Your task to perform on an android device: add a contact in the contacts app Image 0: 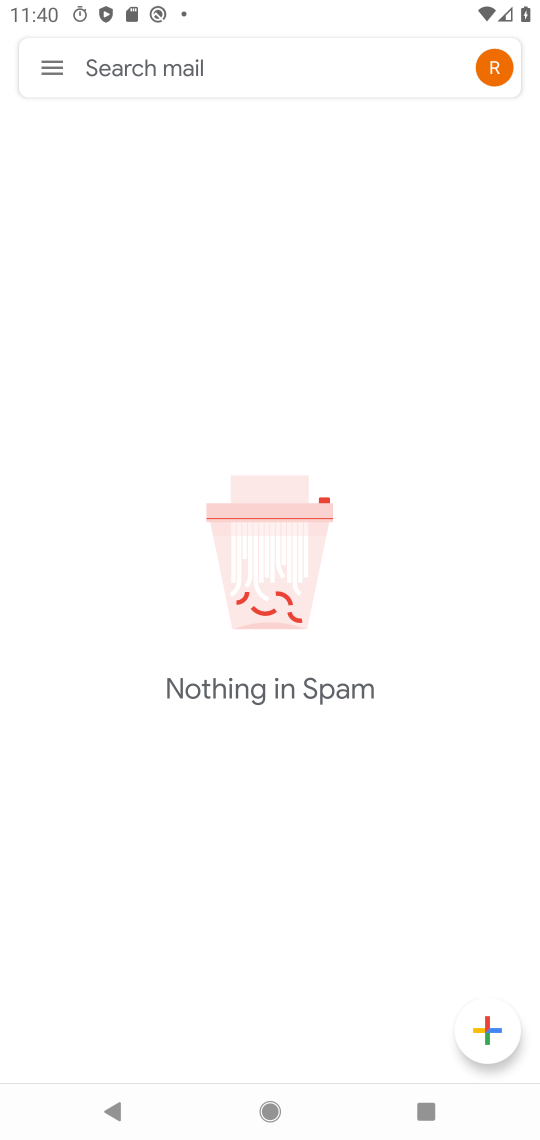
Step 0: press home button
Your task to perform on an android device: add a contact in the contacts app Image 1: 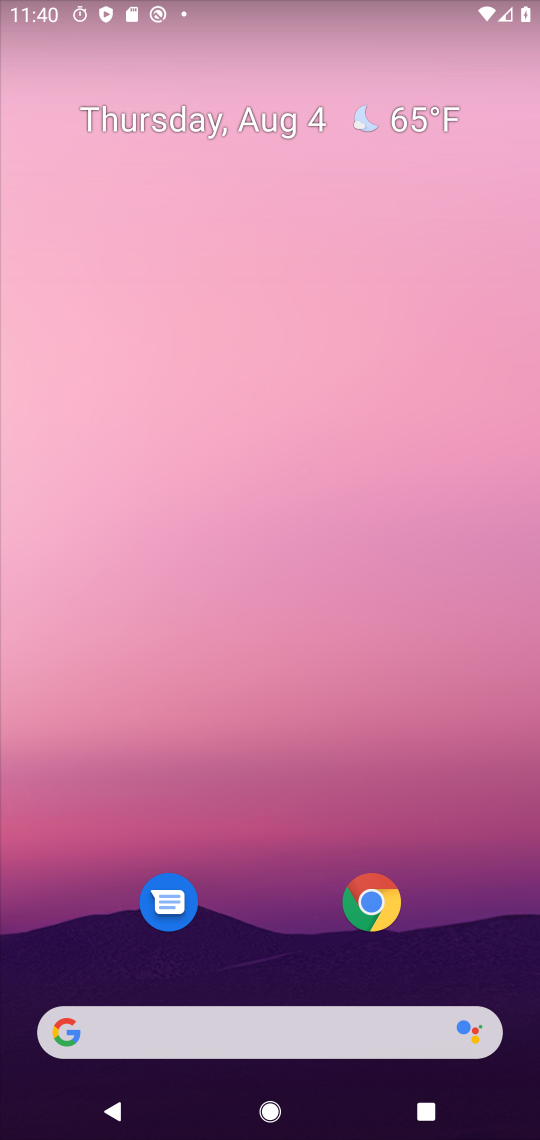
Step 1: drag from (321, 1064) to (270, 310)
Your task to perform on an android device: add a contact in the contacts app Image 2: 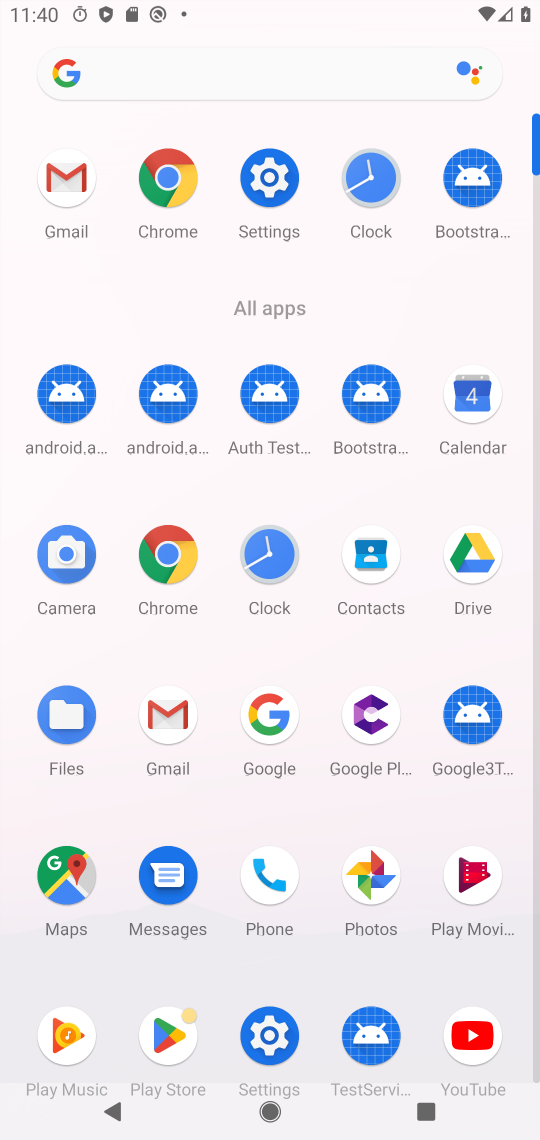
Step 2: click (268, 876)
Your task to perform on an android device: add a contact in the contacts app Image 3: 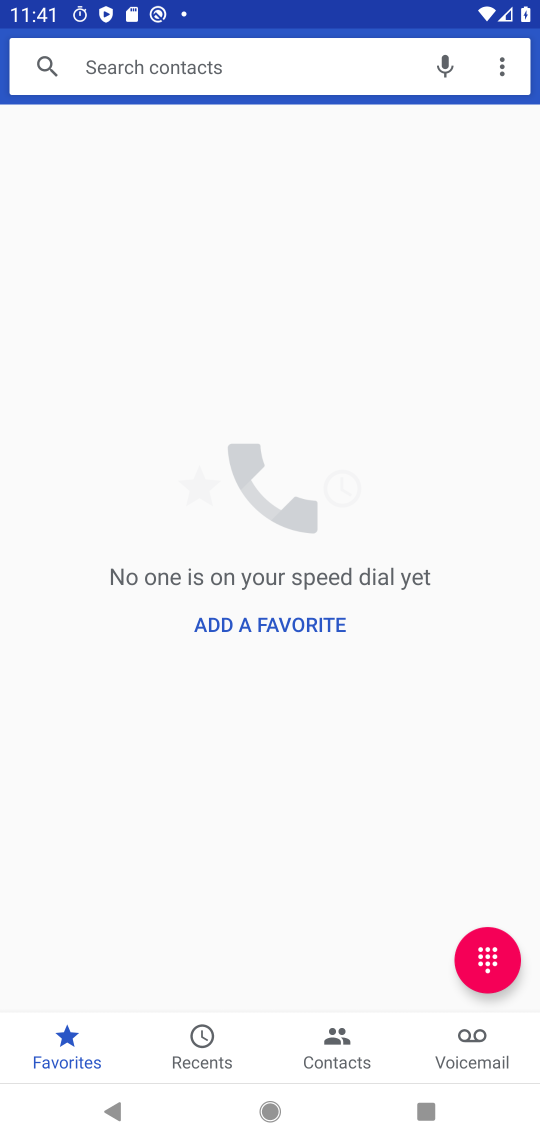
Step 3: click (348, 1039)
Your task to perform on an android device: add a contact in the contacts app Image 4: 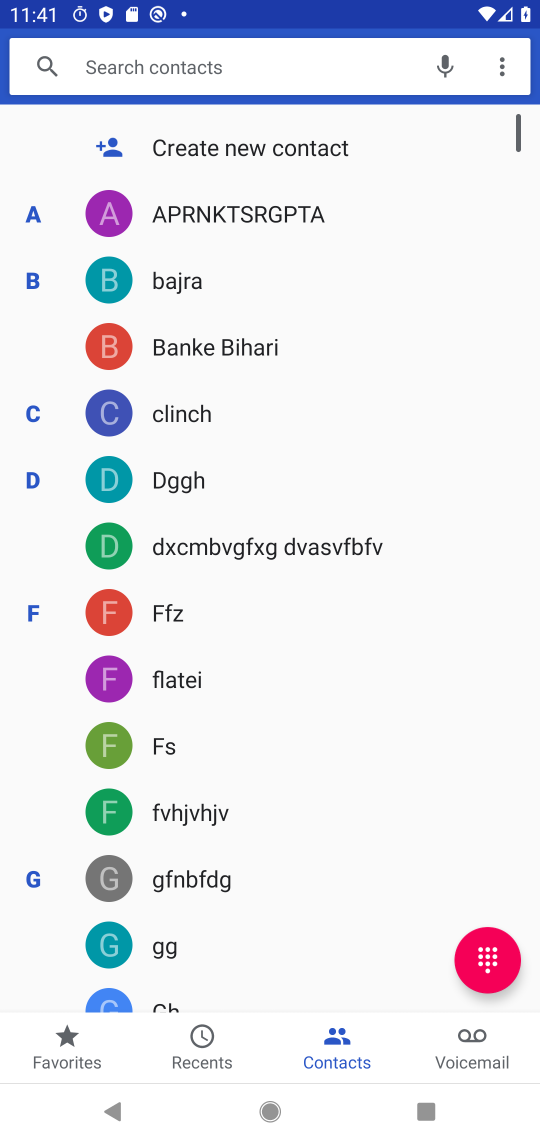
Step 4: click (236, 146)
Your task to perform on an android device: add a contact in the contacts app Image 5: 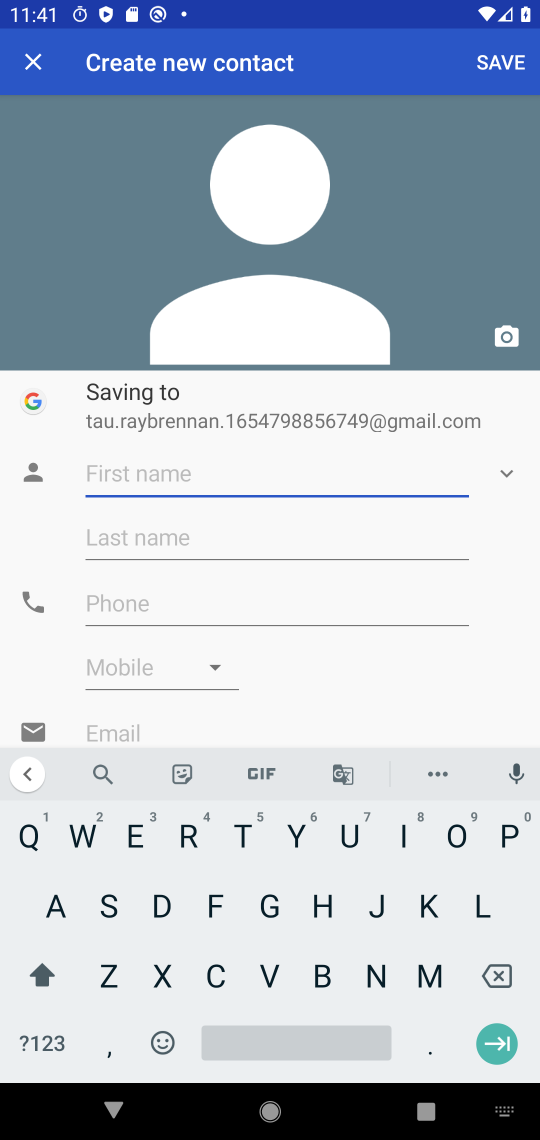
Step 5: click (221, 913)
Your task to perform on an android device: add a contact in the contacts app Image 6: 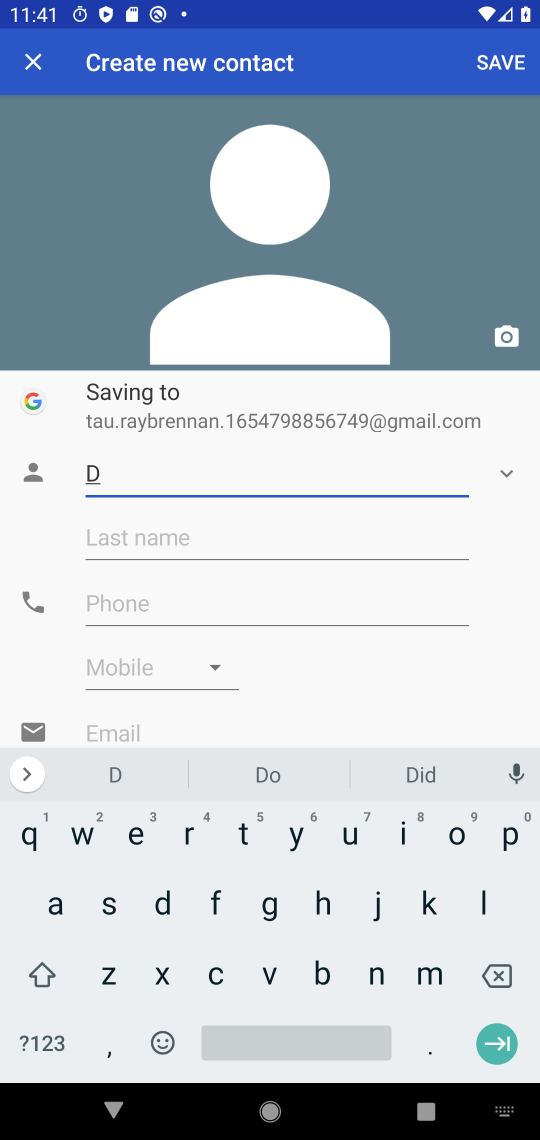
Step 6: click (163, 606)
Your task to perform on an android device: add a contact in the contacts app Image 7: 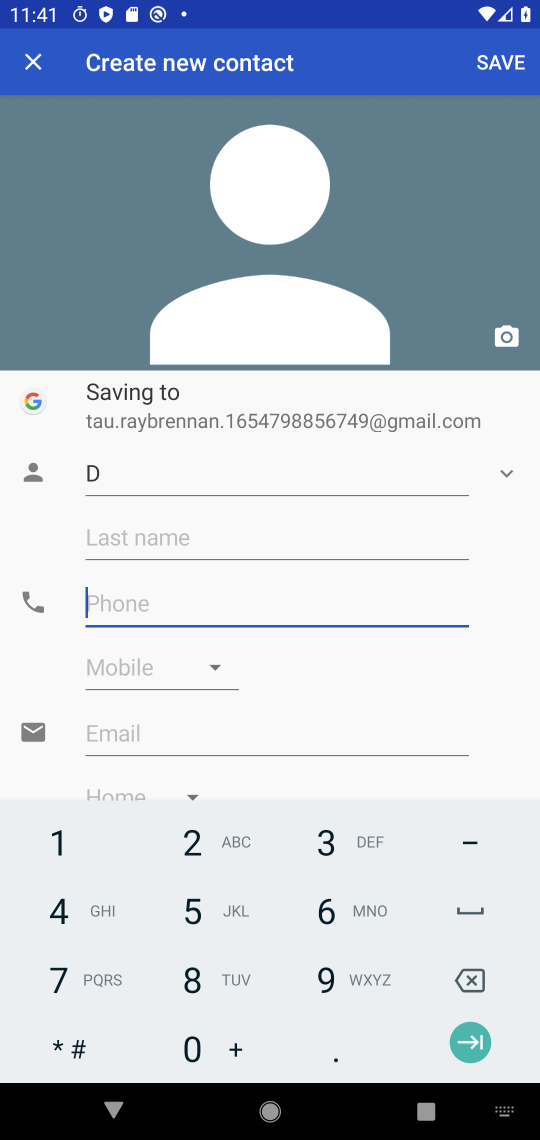
Step 7: click (310, 963)
Your task to perform on an android device: add a contact in the contacts app Image 8: 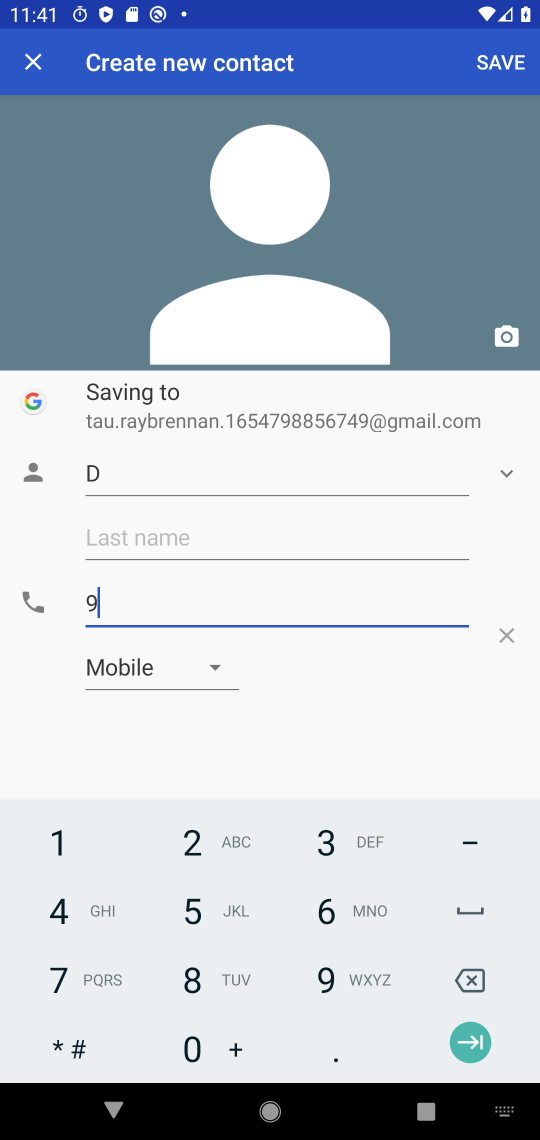
Step 8: click (201, 909)
Your task to perform on an android device: add a contact in the contacts app Image 9: 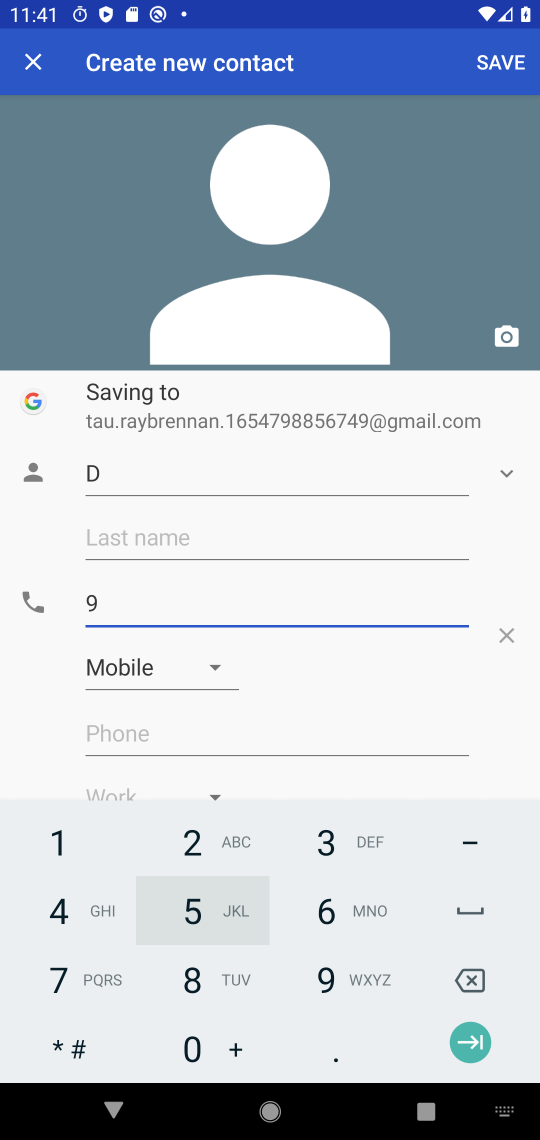
Step 9: click (179, 951)
Your task to perform on an android device: add a contact in the contacts app Image 10: 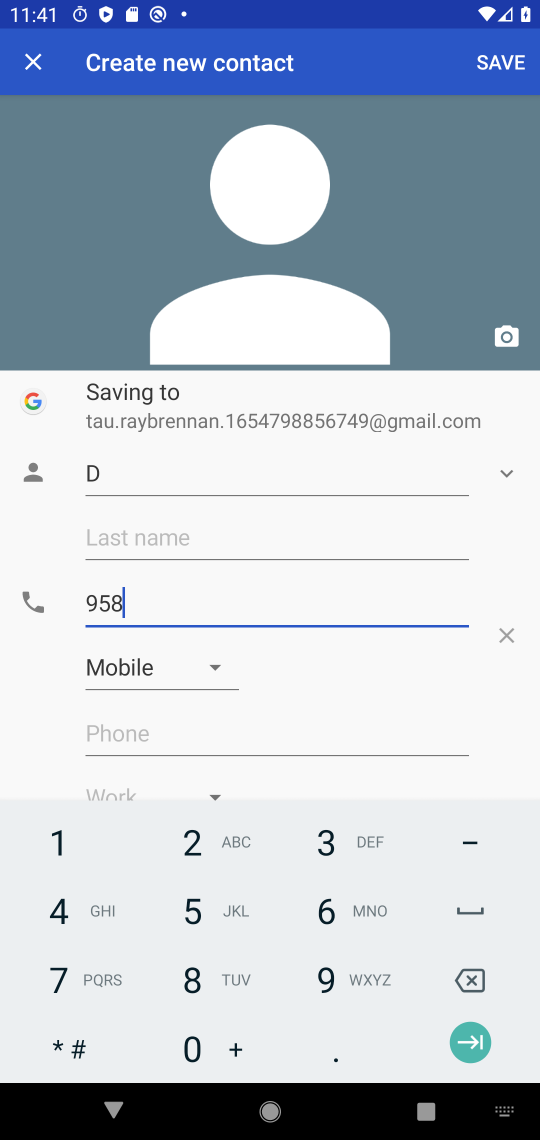
Step 10: click (94, 900)
Your task to perform on an android device: add a contact in the contacts app Image 11: 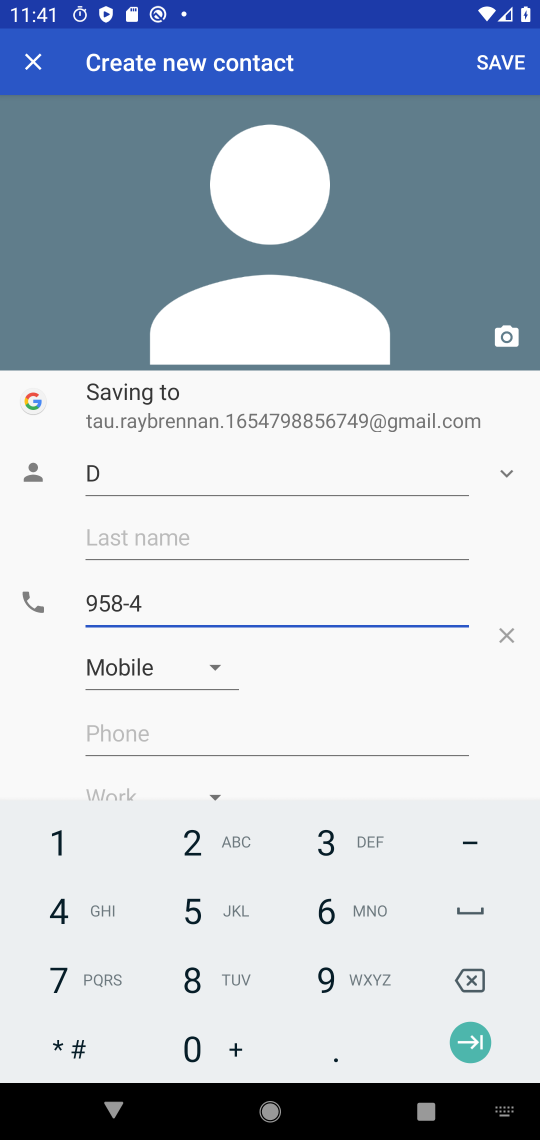
Step 11: click (200, 855)
Your task to perform on an android device: add a contact in the contacts app Image 12: 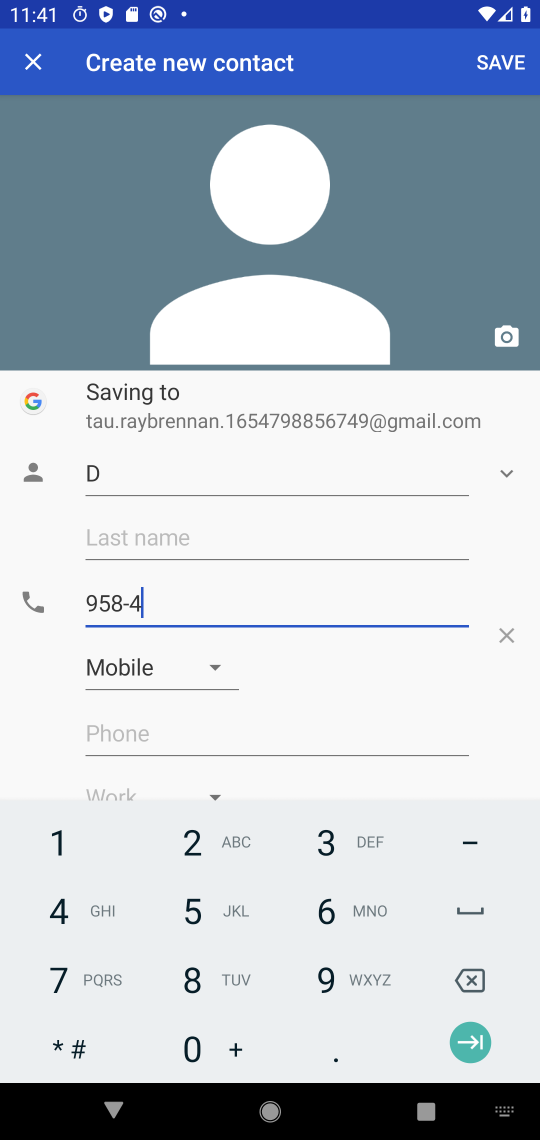
Step 12: click (194, 902)
Your task to perform on an android device: add a contact in the contacts app Image 13: 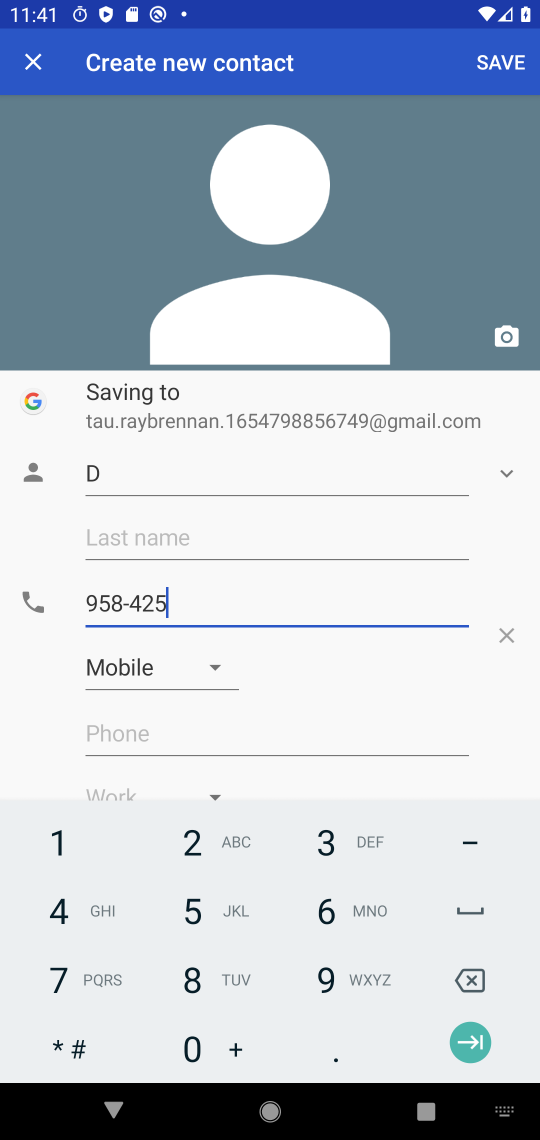
Step 13: click (199, 476)
Your task to perform on an android device: add a contact in the contacts app Image 14: 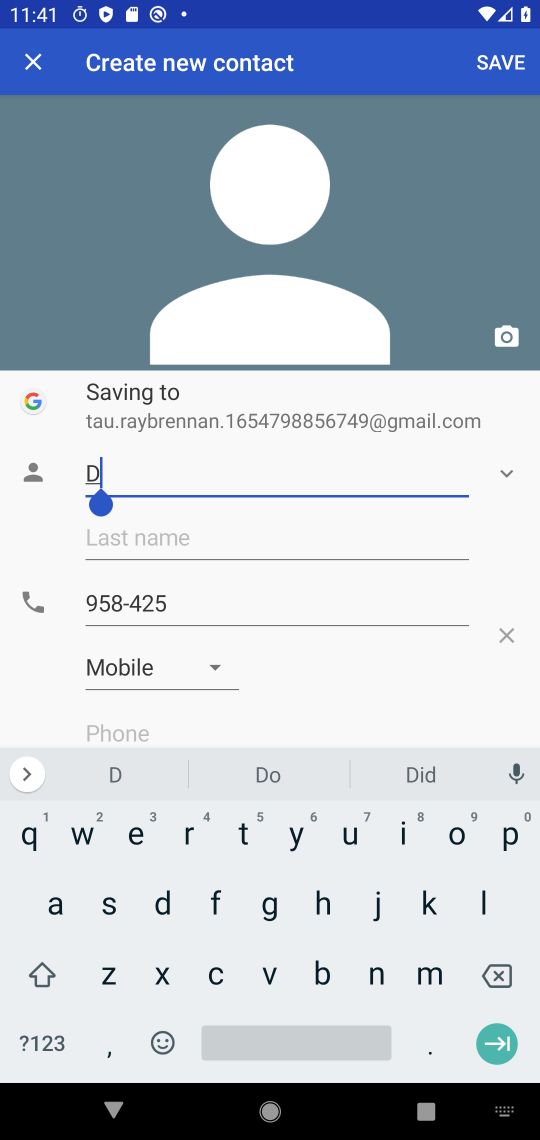
Step 14: click (217, 861)
Your task to perform on an android device: add a contact in the contacts app Image 15: 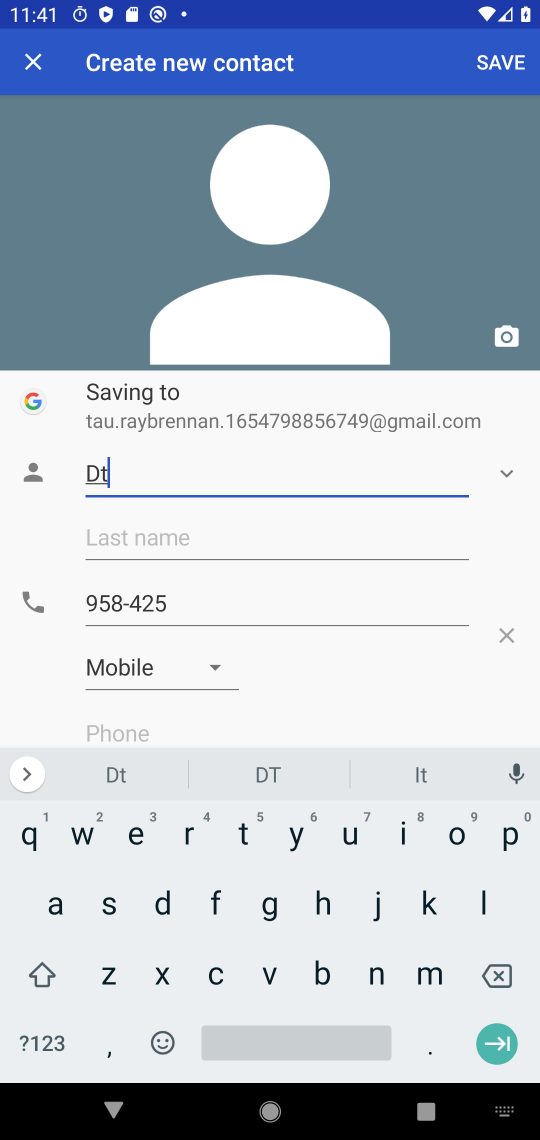
Step 15: click (493, 65)
Your task to perform on an android device: add a contact in the contacts app Image 16: 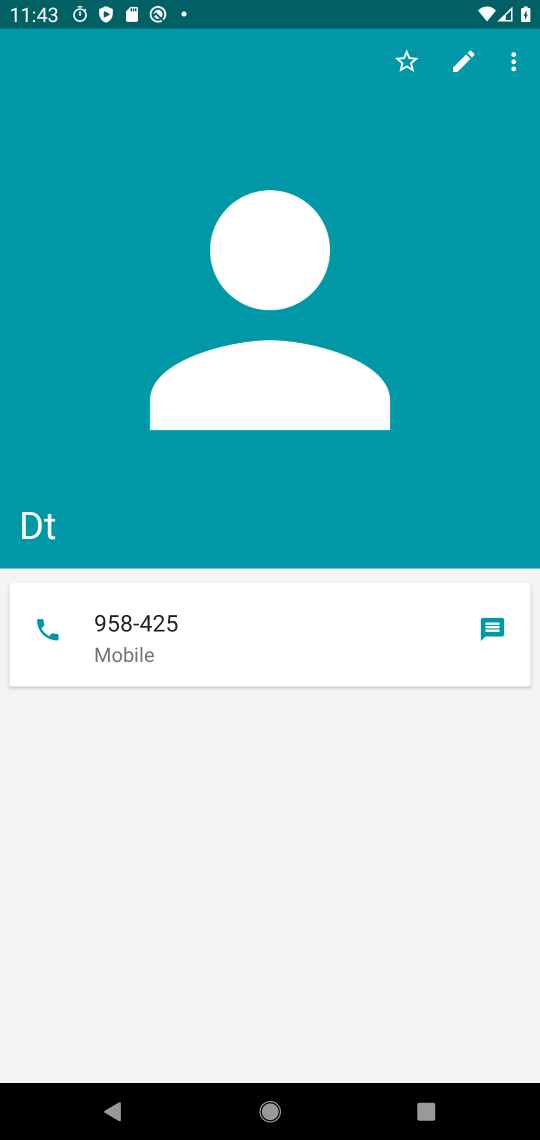
Step 16: task complete